Your task to perform on an android device: What's on my calendar today? Image 0: 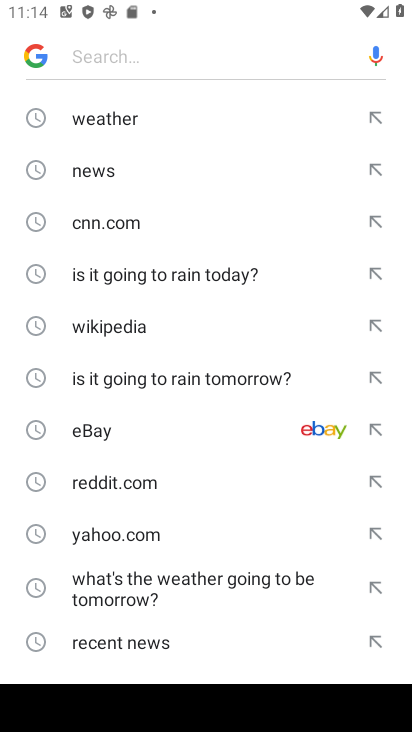
Step 0: press home button
Your task to perform on an android device: What's on my calendar today? Image 1: 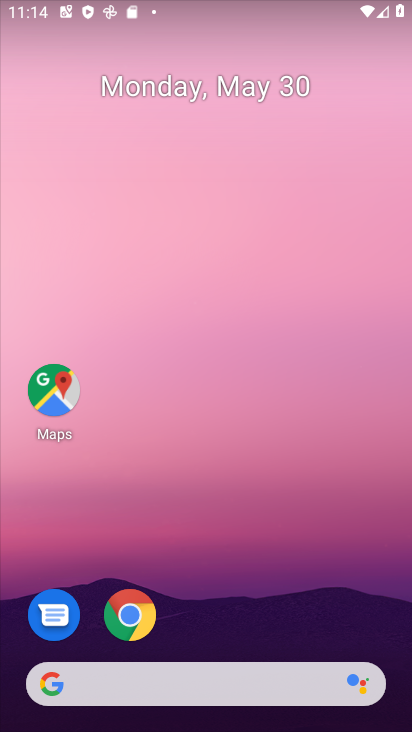
Step 1: click (271, 95)
Your task to perform on an android device: What's on my calendar today? Image 2: 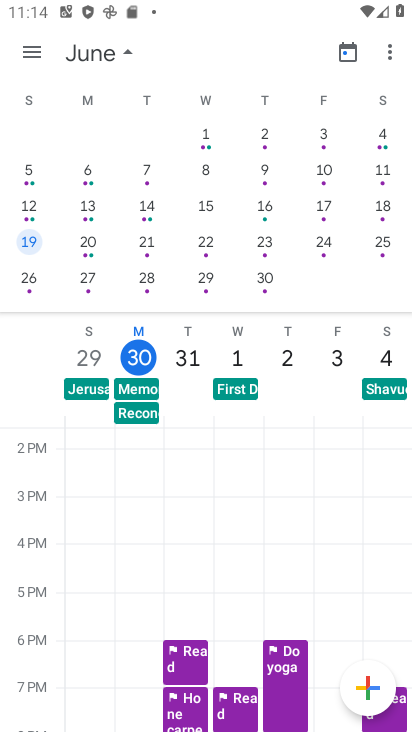
Step 2: task complete